Your task to perform on an android device: change the clock display to analog Image 0: 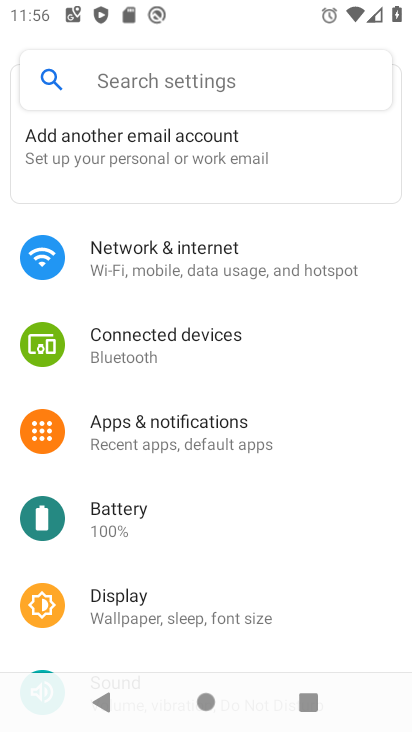
Step 0: press home button
Your task to perform on an android device: change the clock display to analog Image 1: 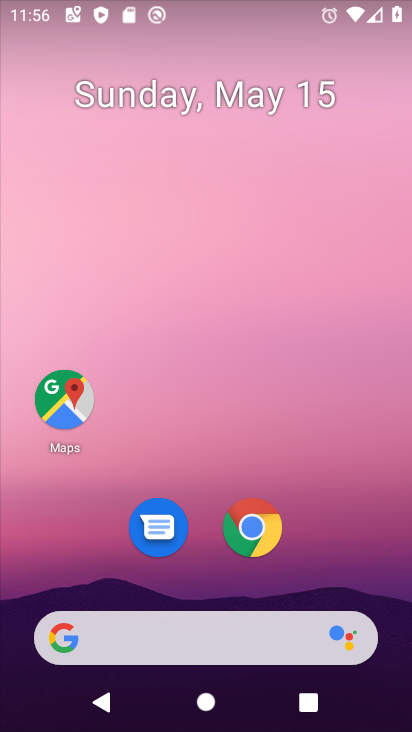
Step 1: drag from (345, 551) to (332, 125)
Your task to perform on an android device: change the clock display to analog Image 2: 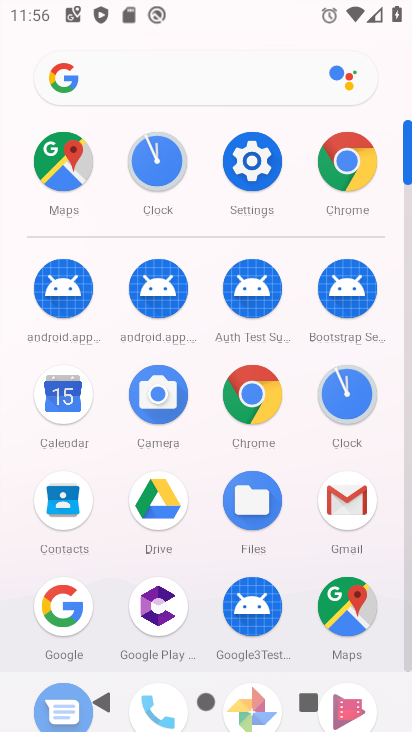
Step 2: click (246, 179)
Your task to perform on an android device: change the clock display to analog Image 3: 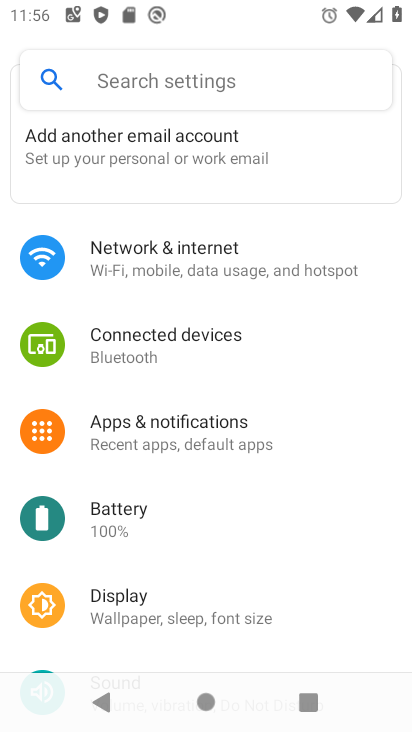
Step 3: press home button
Your task to perform on an android device: change the clock display to analog Image 4: 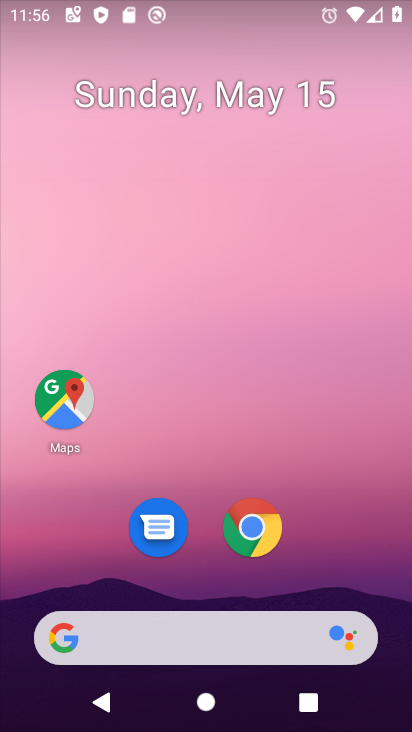
Step 4: drag from (340, 551) to (332, 167)
Your task to perform on an android device: change the clock display to analog Image 5: 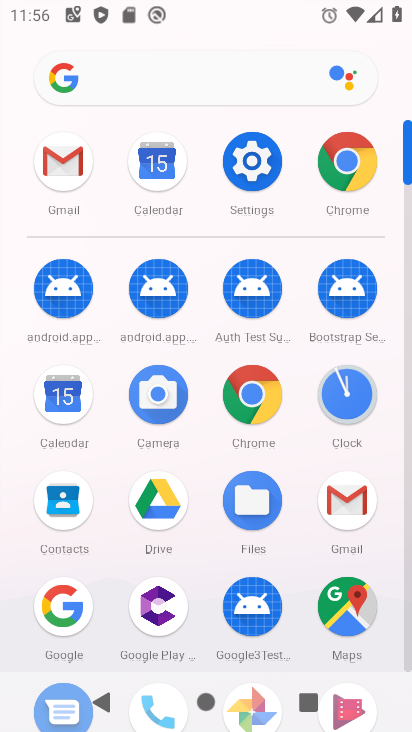
Step 5: click (334, 373)
Your task to perform on an android device: change the clock display to analog Image 6: 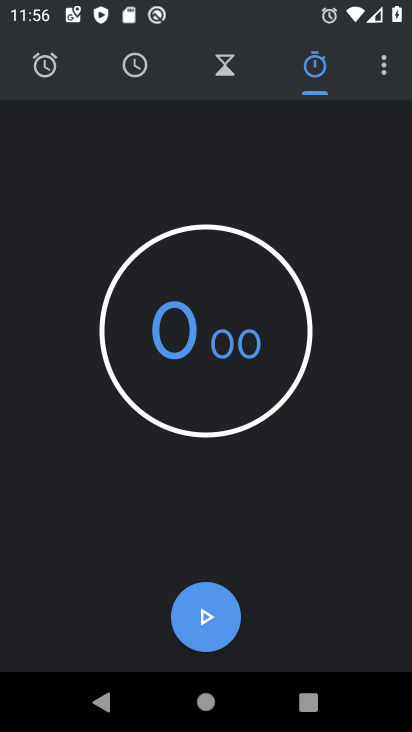
Step 6: click (369, 72)
Your task to perform on an android device: change the clock display to analog Image 7: 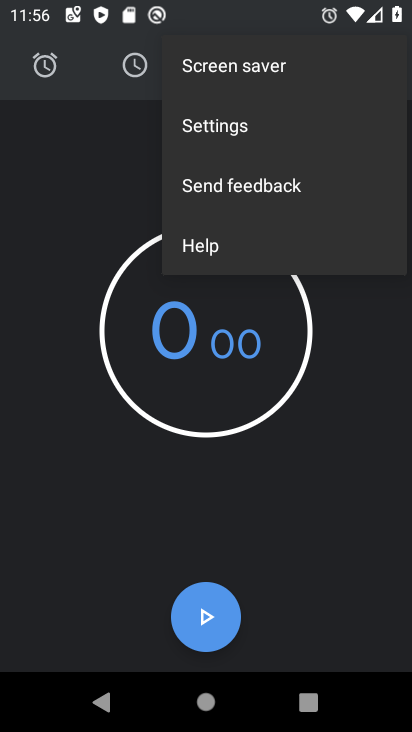
Step 7: click (299, 124)
Your task to perform on an android device: change the clock display to analog Image 8: 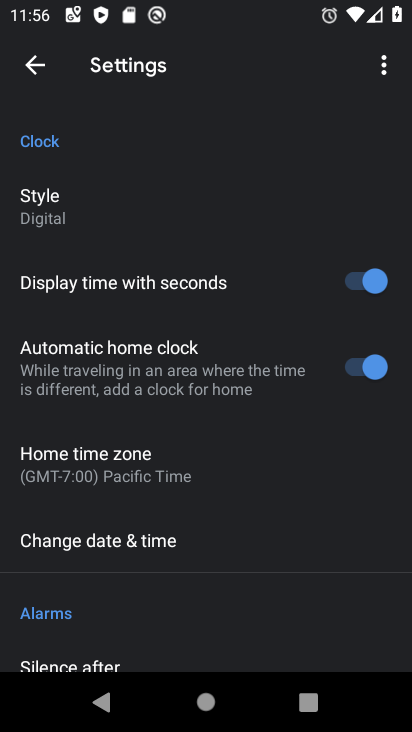
Step 8: click (84, 218)
Your task to perform on an android device: change the clock display to analog Image 9: 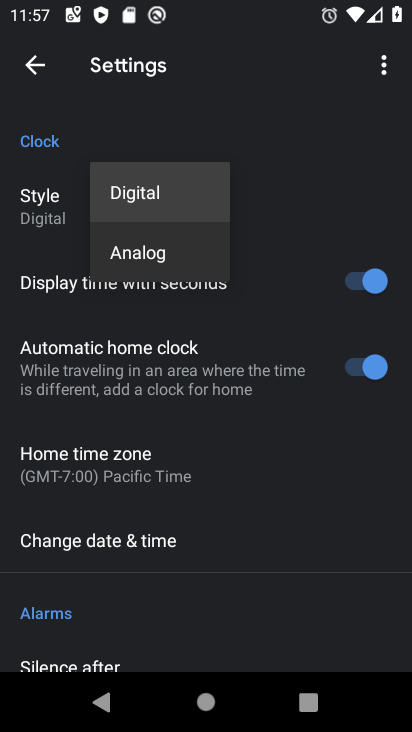
Step 9: click (132, 248)
Your task to perform on an android device: change the clock display to analog Image 10: 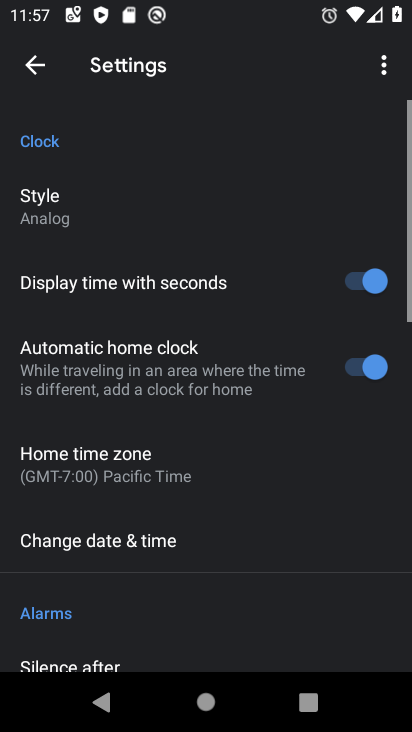
Step 10: task complete